Your task to perform on an android device: turn notification dots off Image 0: 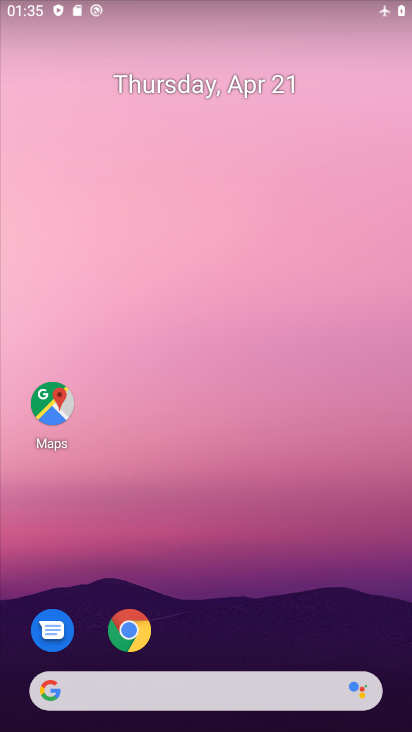
Step 0: drag from (219, 627) to (191, 21)
Your task to perform on an android device: turn notification dots off Image 1: 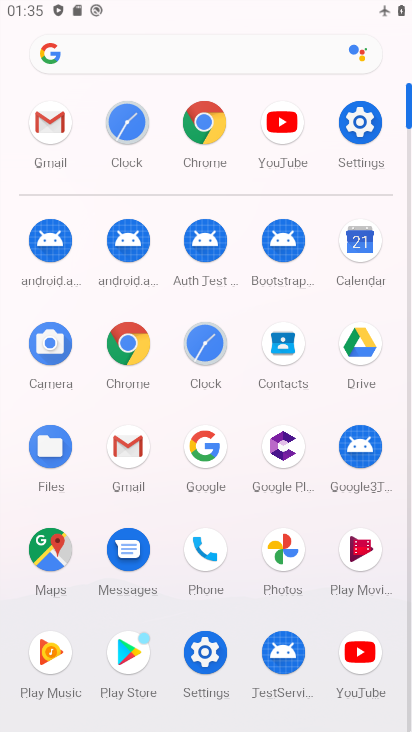
Step 1: click (207, 668)
Your task to perform on an android device: turn notification dots off Image 2: 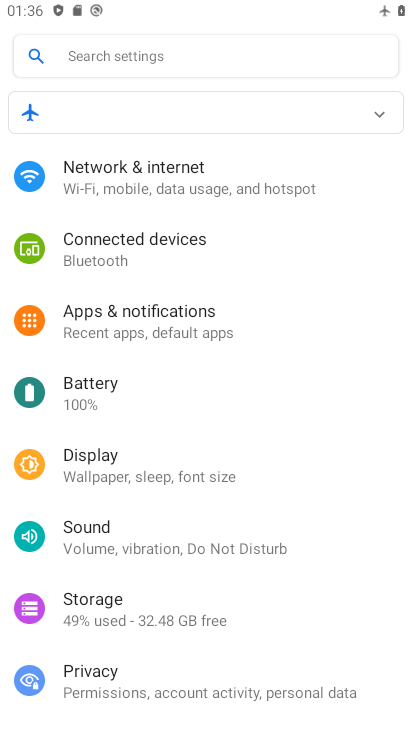
Step 2: click (177, 351)
Your task to perform on an android device: turn notification dots off Image 3: 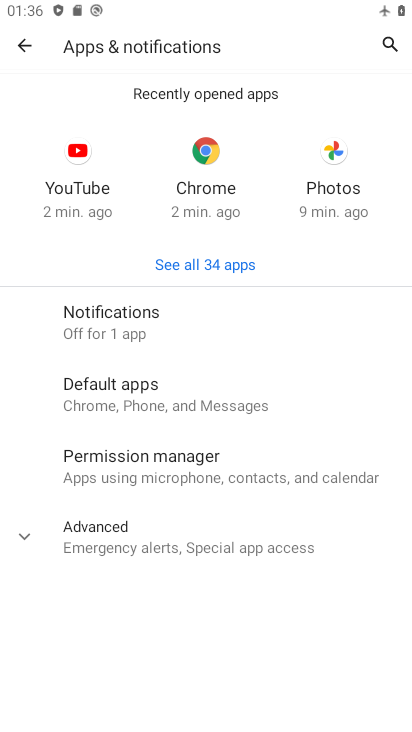
Step 3: click (177, 336)
Your task to perform on an android device: turn notification dots off Image 4: 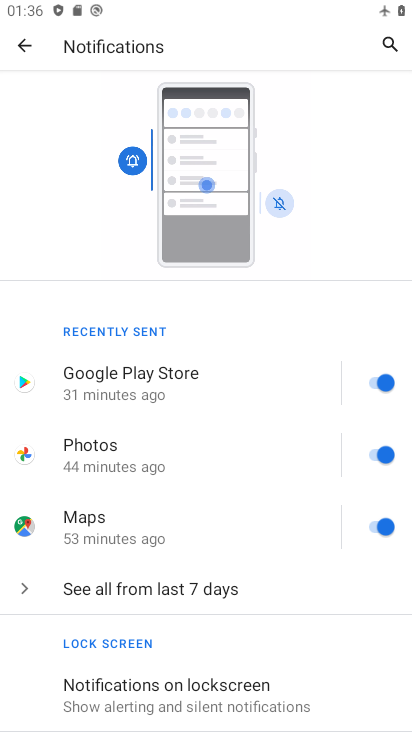
Step 4: drag from (146, 708) to (166, 358)
Your task to perform on an android device: turn notification dots off Image 5: 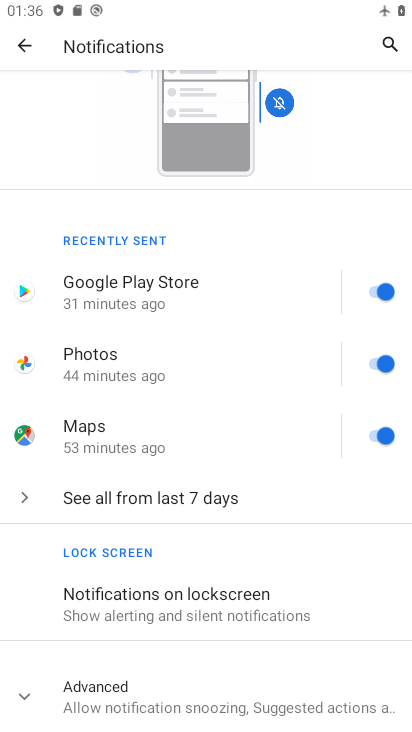
Step 5: click (159, 685)
Your task to perform on an android device: turn notification dots off Image 6: 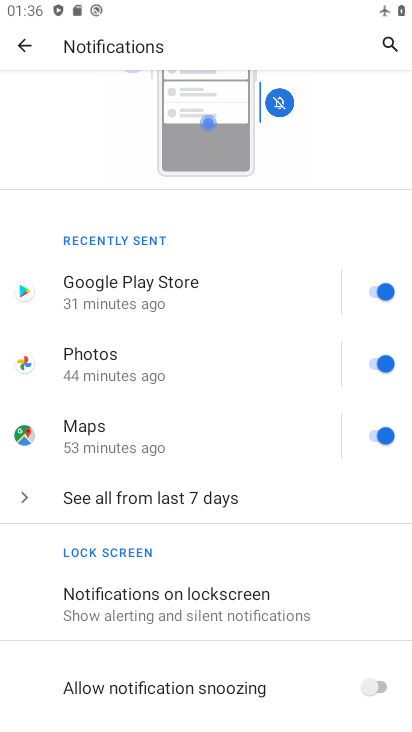
Step 6: drag from (217, 663) to (323, 4)
Your task to perform on an android device: turn notification dots off Image 7: 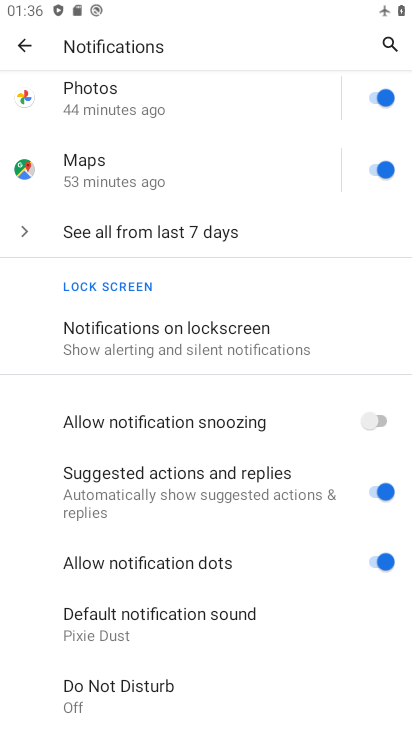
Step 7: click (217, 686)
Your task to perform on an android device: turn notification dots off Image 8: 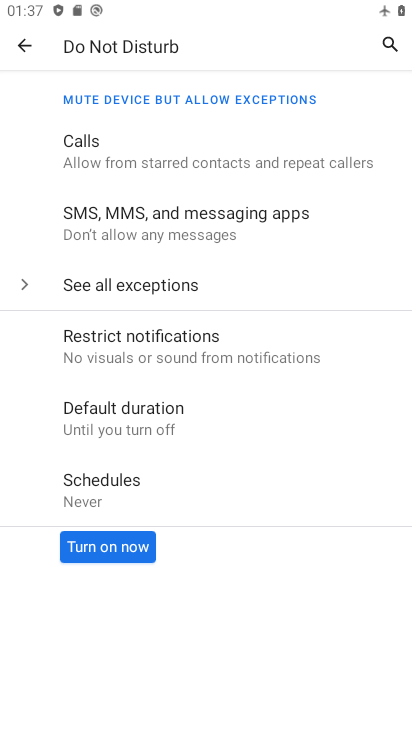
Step 8: task complete